Your task to perform on an android device: move a message to another label in the gmail app Image 0: 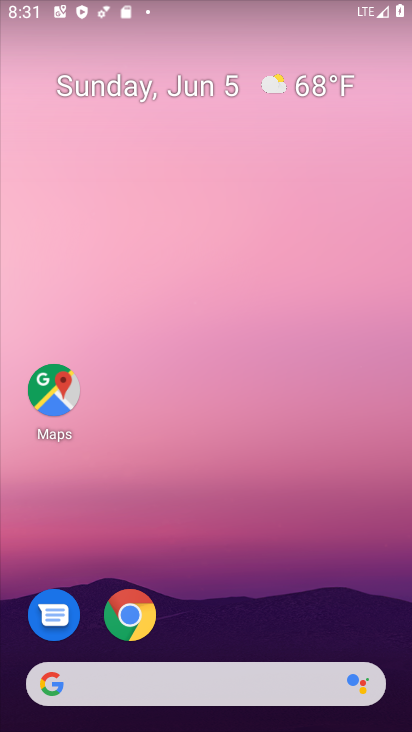
Step 0: drag from (193, 642) to (168, 177)
Your task to perform on an android device: move a message to another label in the gmail app Image 1: 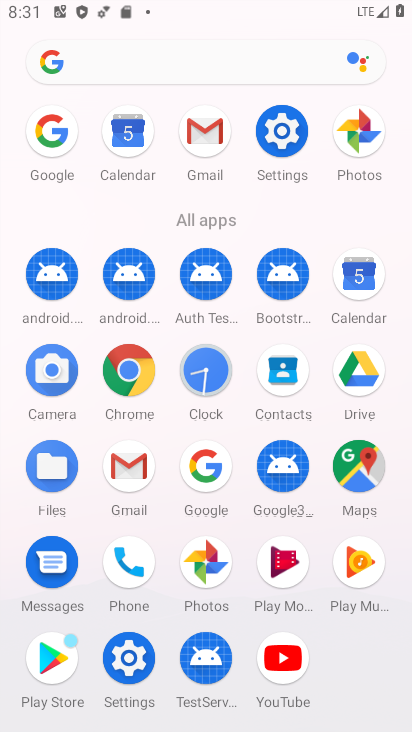
Step 1: click (141, 456)
Your task to perform on an android device: move a message to another label in the gmail app Image 2: 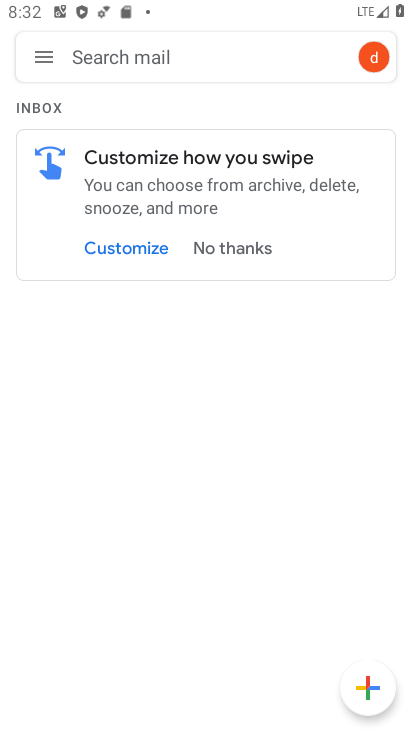
Step 2: click (45, 56)
Your task to perform on an android device: move a message to another label in the gmail app Image 3: 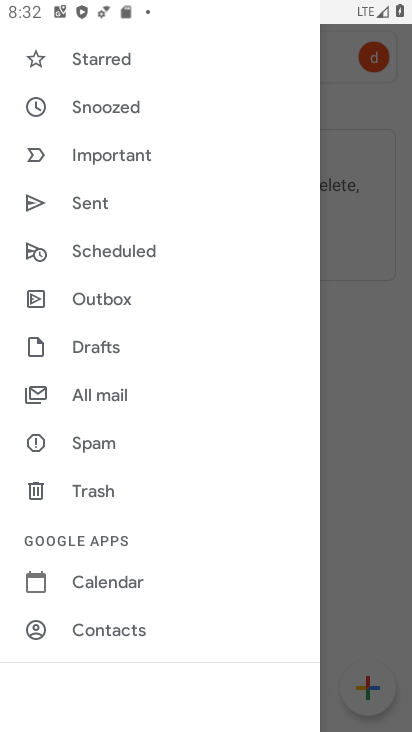
Step 3: click (81, 120)
Your task to perform on an android device: move a message to another label in the gmail app Image 4: 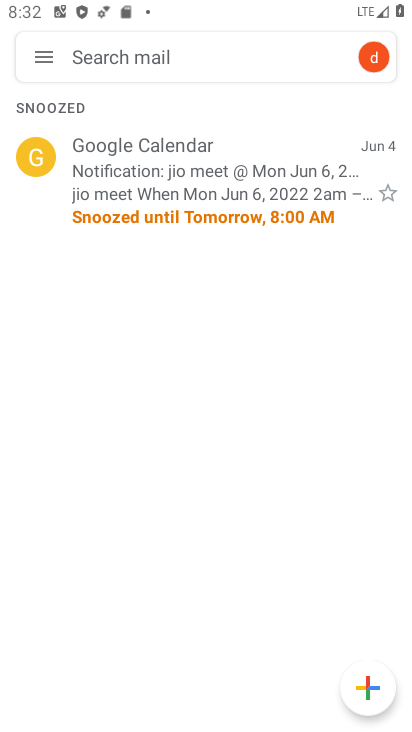
Step 4: click (35, 154)
Your task to perform on an android device: move a message to another label in the gmail app Image 5: 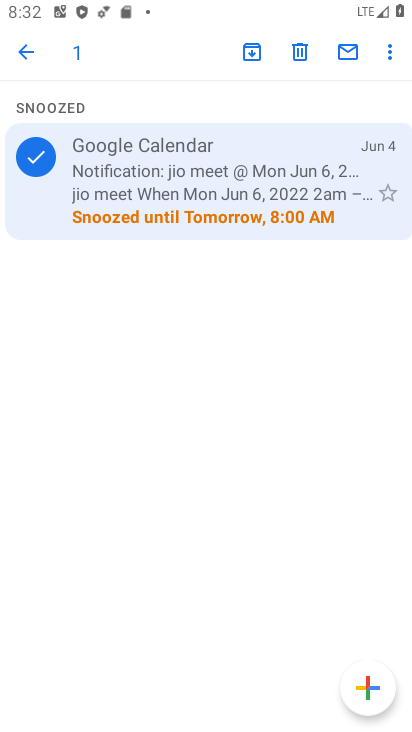
Step 5: click (384, 60)
Your task to perform on an android device: move a message to another label in the gmail app Image 6: 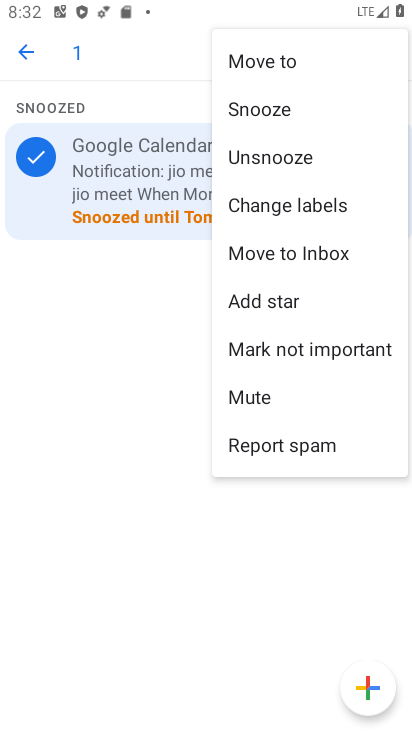
Step 6: click (278, 200)
Your task to perform on an android device: move a message to another label in the gmail app Image 7: 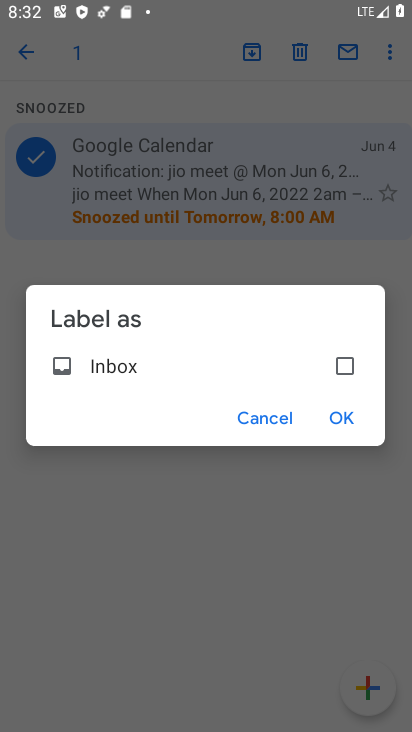
Step 7: click (340, 361)
Your task to perform on an android device: move a message to another label in the gmail app Image 8: 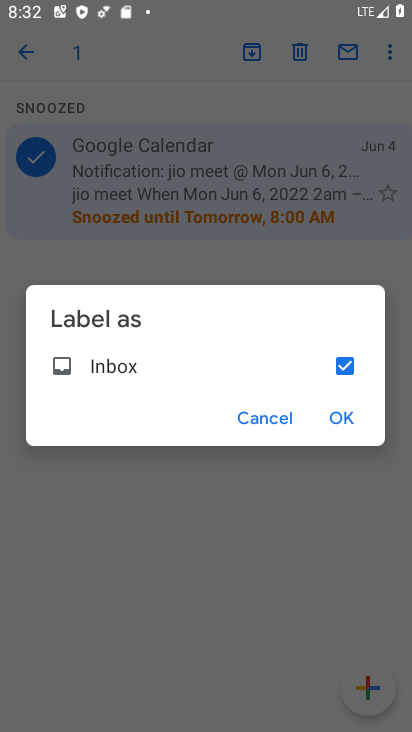
Step 8: click (335, 416)
Your task to perform on an android device: move a message to another label in the gmail app Image 9: 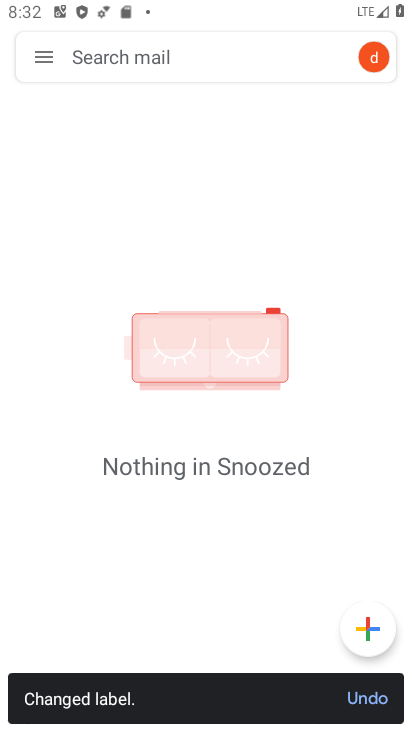
Step 9: task complete